Your task to perform on an android device: Open Android settings Image 0: 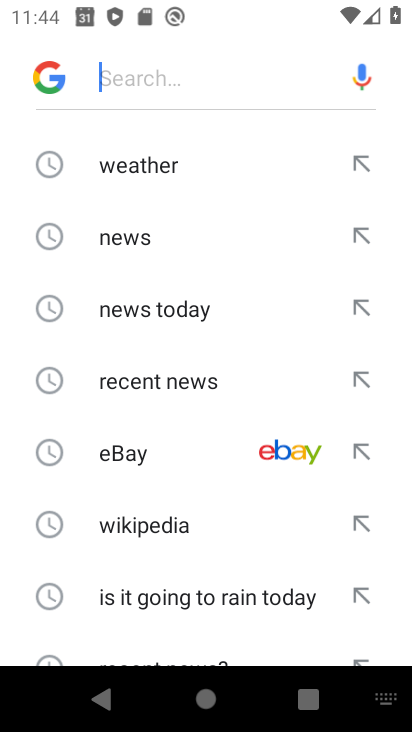
Step 0: press home button
Your task to perform on an android device: Open Android settings Image 1: 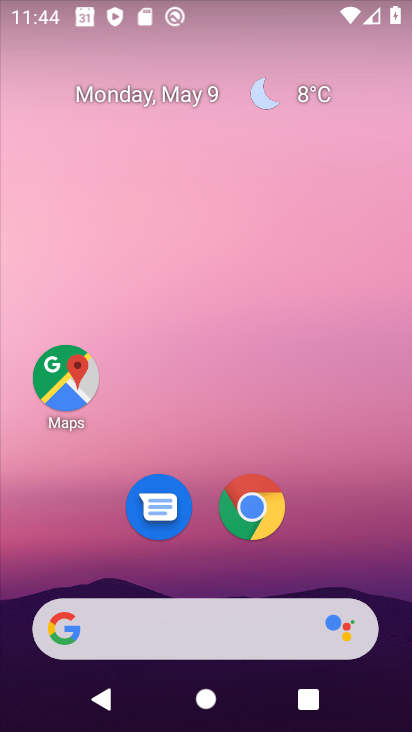
Step 1: drag from (316, 559) to (310, 117)
Your task to perform on an android device: Open Android settings Image 2: 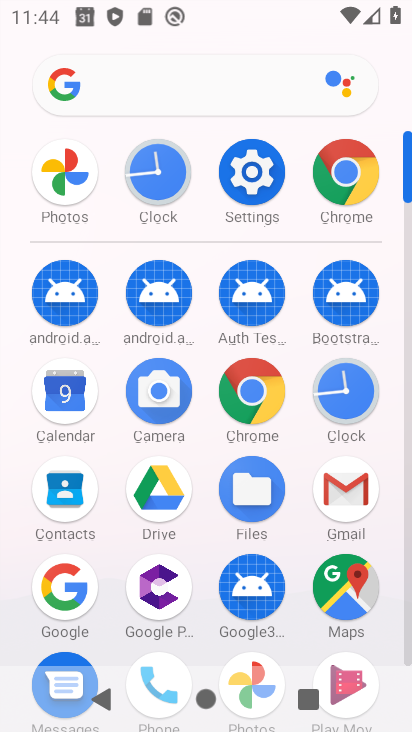
Step 2: click (244, 168)
Your task to perform on an android device: Open Android settings Image 3: 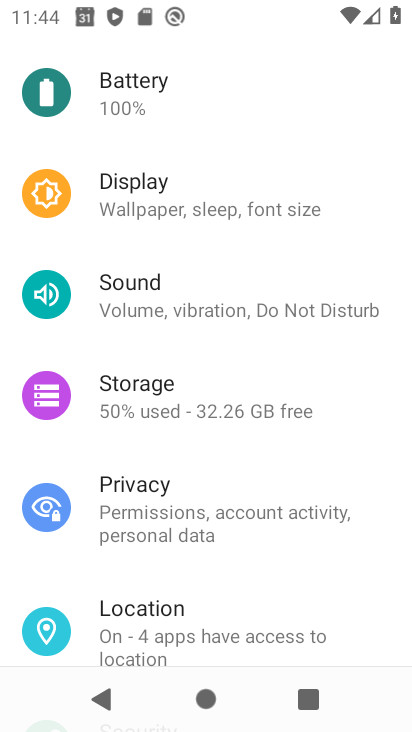
Step 3: click (195, 207)
Your task to perform on an android device: Open Android settings Image 4: 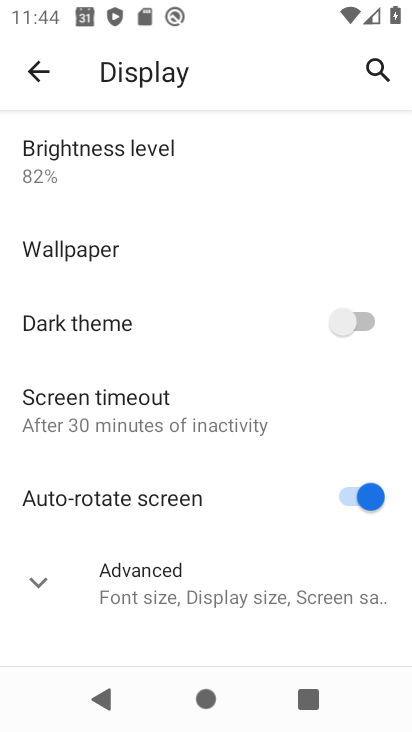
Step 4: click (41, 70)
Your task to perform on an android device: Open Android settings Image 5: 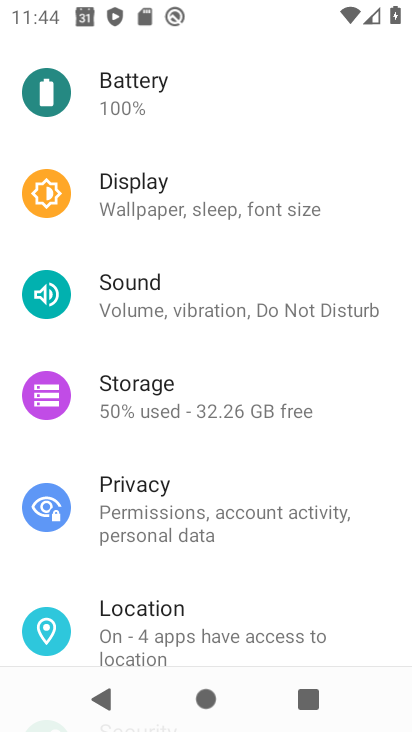
Step 5: drag from (237, 628) to (224, 181)
Your task to perform on an android device: Open Android settings Image 6: 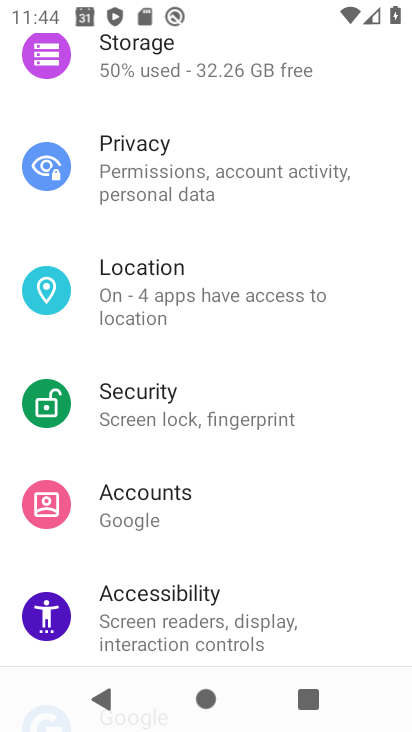
Step 6: drag from (238, 505) to (238, 159)
Your task to perform on an android device: Open Android settings Image 7: 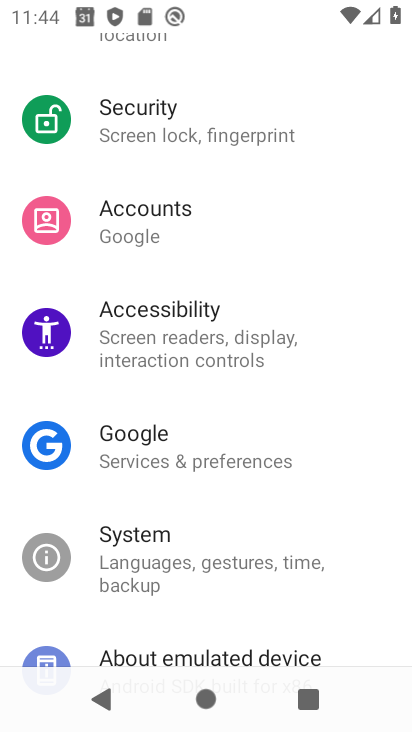
Step 7: drag from (218, 318) to (218, 249)
Your task to perform on an android device: Open Android settings Image 8: 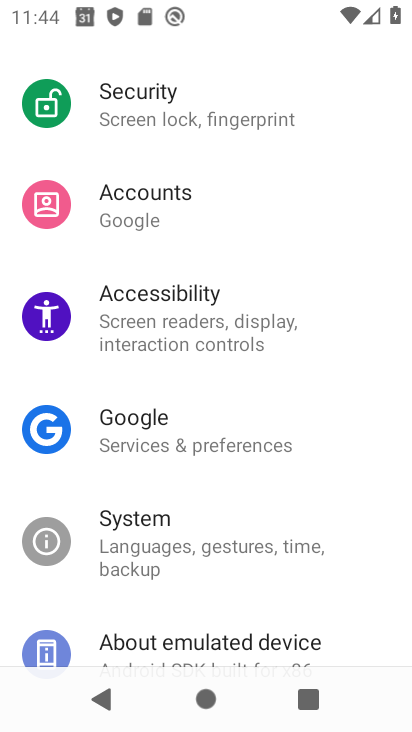
Step 8: drag from (202, 593) to (196, 293)
Your task to perform on an android device: Open Android settings Image 9: 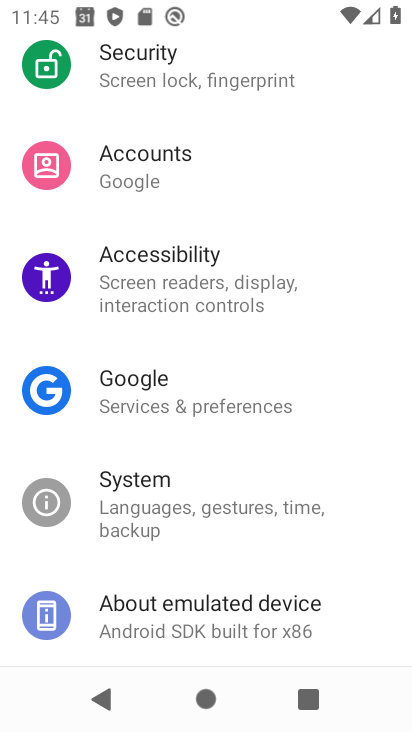
Step 9: click (172, 629)
Your task to perform on an android device: Open Android settings Image 10: 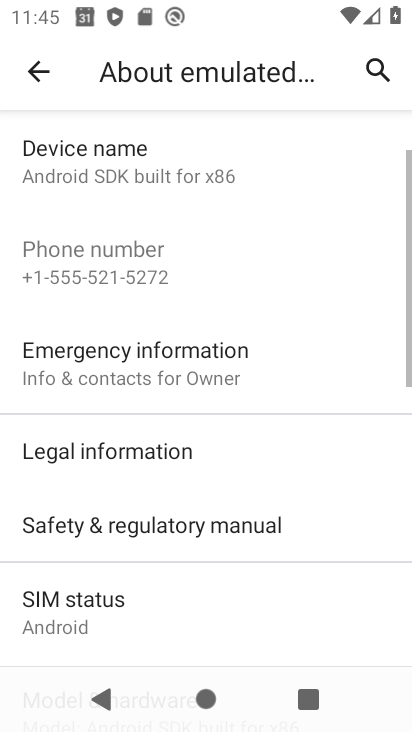
Step 10: drag from (249, 577) to (245, 233)
Your task to perform on an android device: Open Android settings Image 11: 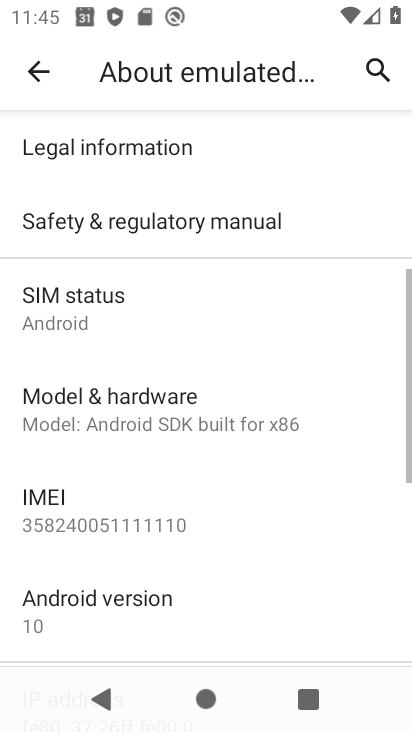
Step 11: click (107, 612)
Your task to perform on an android device: Open Android settings Image 12: 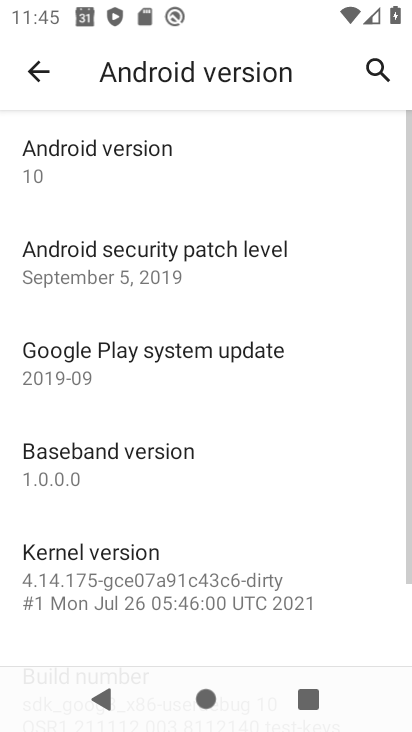
Step 12: task complete